Your task to perform on an android device: Open Amazon Image 0: 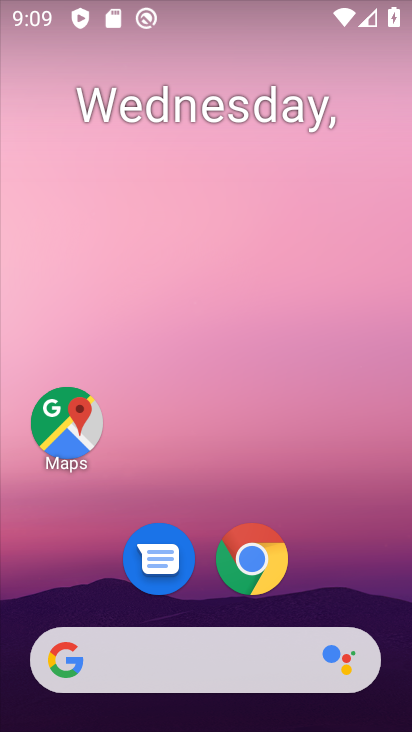
Step 0: click (260, 552)
Your task to perform on an android device: Open Amazon Image 1: 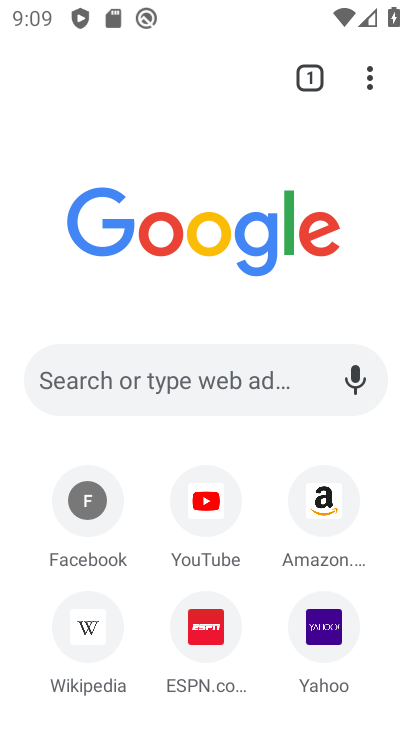
Step 1: click (314, 495)
Your task to perform on an android device: Open Amazon Image 2: 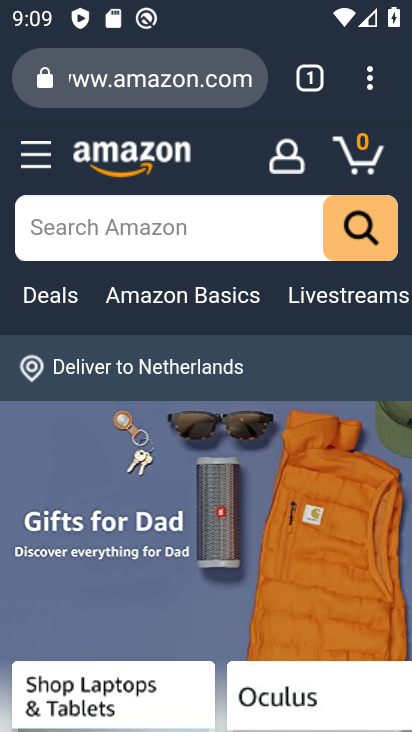
Step 2: task complete